Your task to perform on an android device: turn on the 12-hour format for clock Image 0: 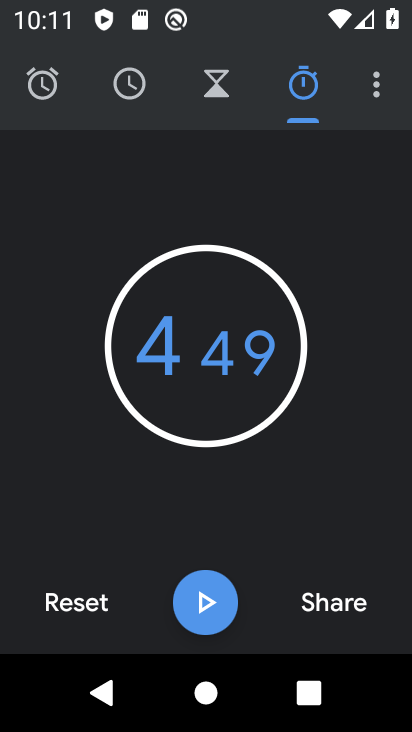
Step 0: press home button
Your task to perform on an android device: turn on the 12-hour format for clock Image 1: 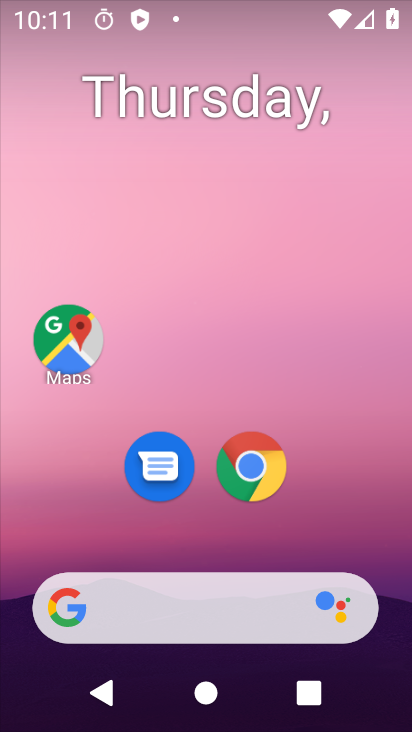
Step 1: drag from (194, 607) to (332, 220)
Your task to perform on an android device: turn on the 12-hour format for clock Image 2: 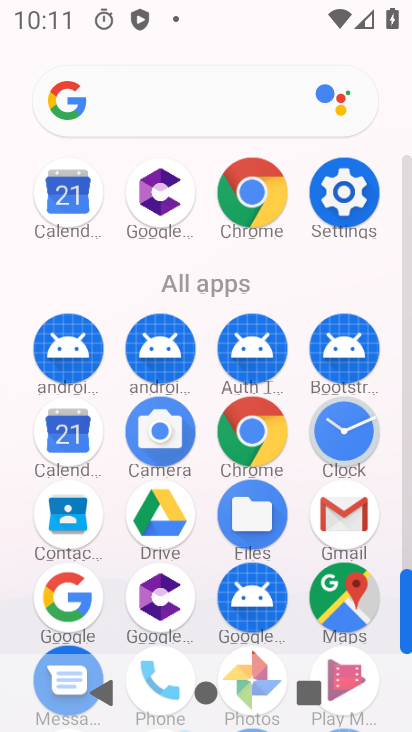
Step 2: click (332, 438)
Your task to perform on an android device: turn on the 12-hour format for clock Image 3: 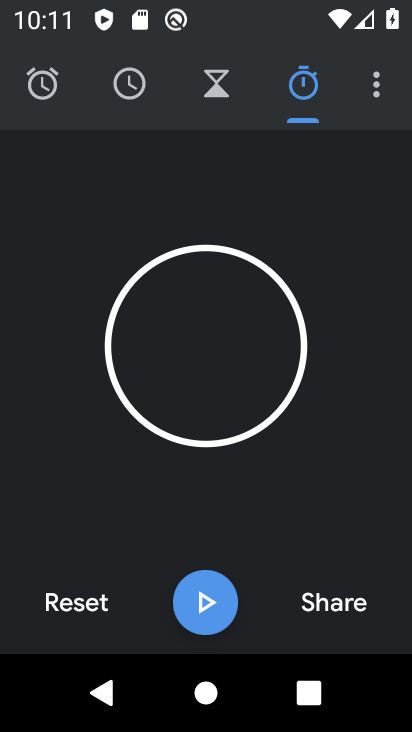
Step 3: click (381, 90)
Your task to perform on an android device: turn on the 12-hour format for clock Image 4: 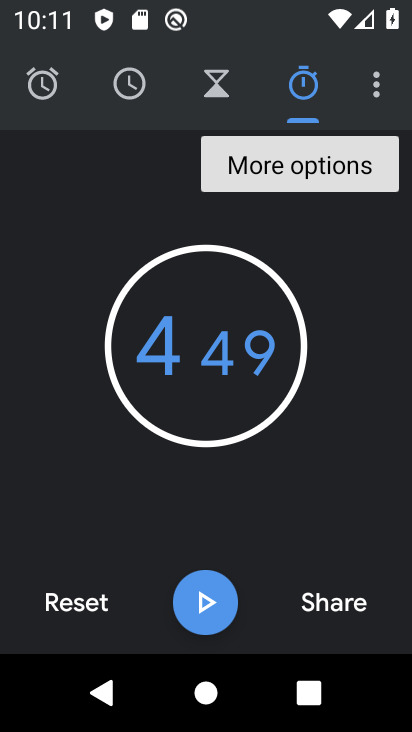
Step 4: click (381, 85)
Your task to perform on an android device: turn on the 12-hour format for clock Image 5: 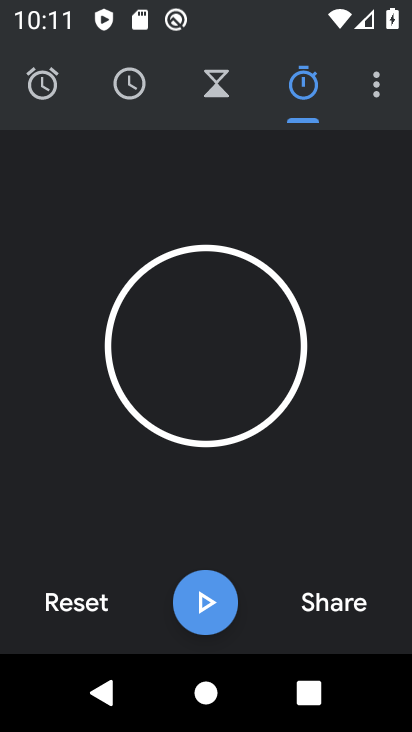
Step 5: click (375, 84)
Your task to perform on an android device: turn on the 12-hour format for clock Image 6: 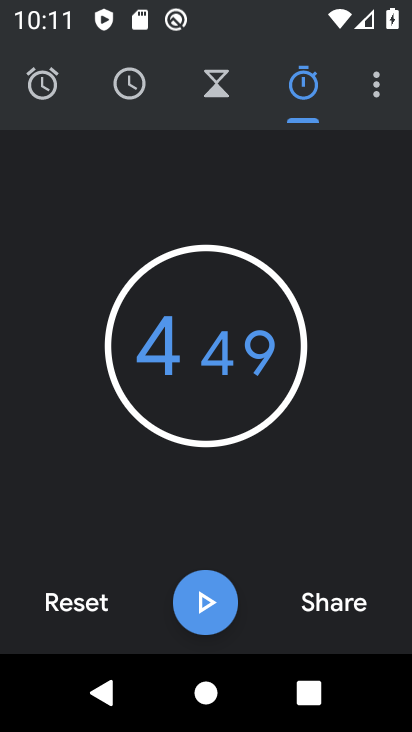
Step 6: click (378, 91)
Your task to perform on an android device: turn on the 12-hour format for clock Image 7: 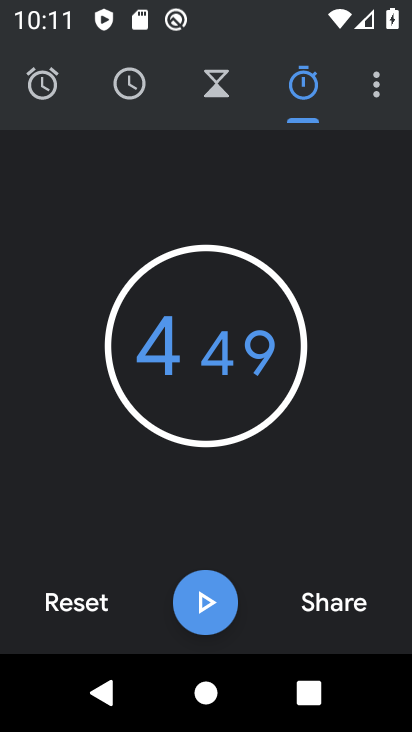
Step 7: click (379, 88)
Your task to perform on an android device: turn on the 12-hour format for clock Image 8: 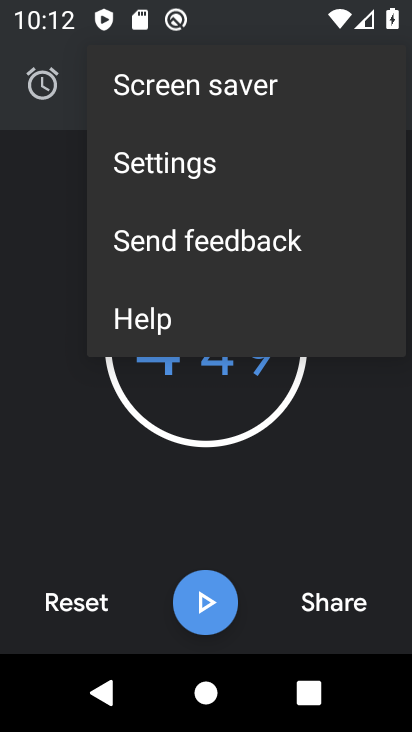
Step 8: click (193, 167)
Your task to perform on an android device: turn on the 12-hour format for clock Image 9: 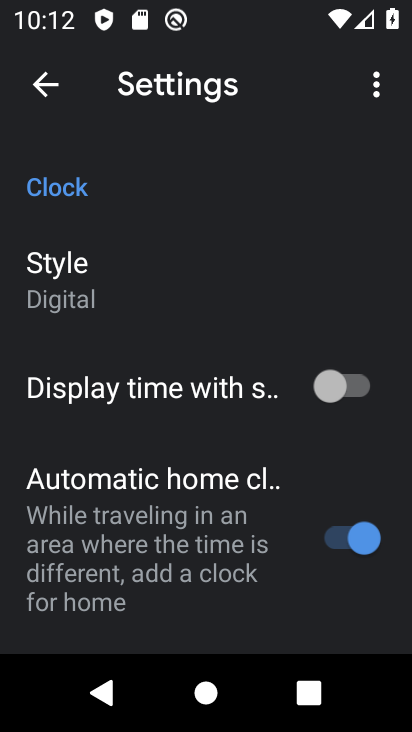
Step 9: drag from (208, 499) to (353, 110)
Your task to perform on an android device: turn on the 12-hour format for clock Image 10: 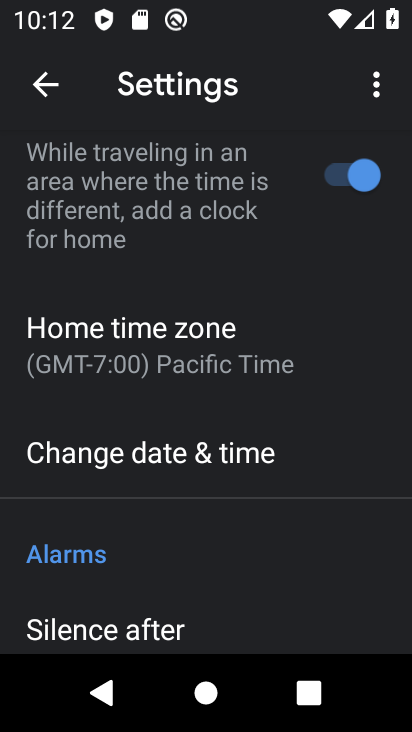
Step 10: drag from (219, 576) to (289, 280)
Your task to perform on an android device: turn on the 12-hour format for clock Image 11: 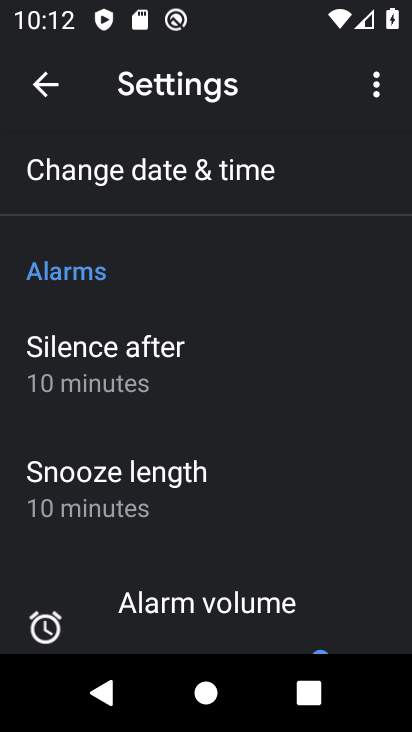
Step 11: click (243, 177)
Your task to perform on an android device: turn on the 12-hour format for clock Image 12: 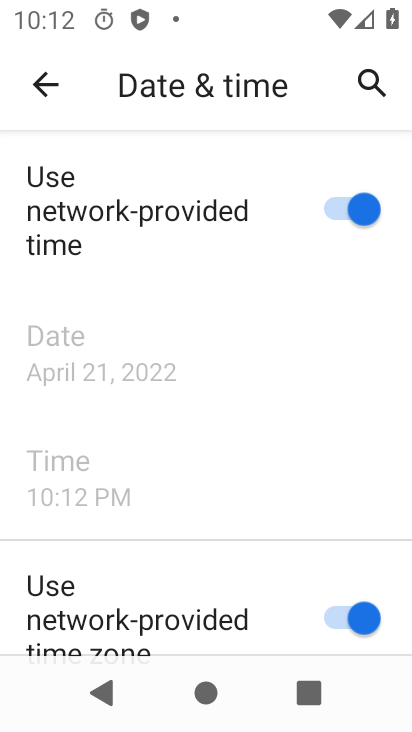
Step 12: task complete